Your task to perform on an android device: turn vacation reply on in the gmail app Image 0: 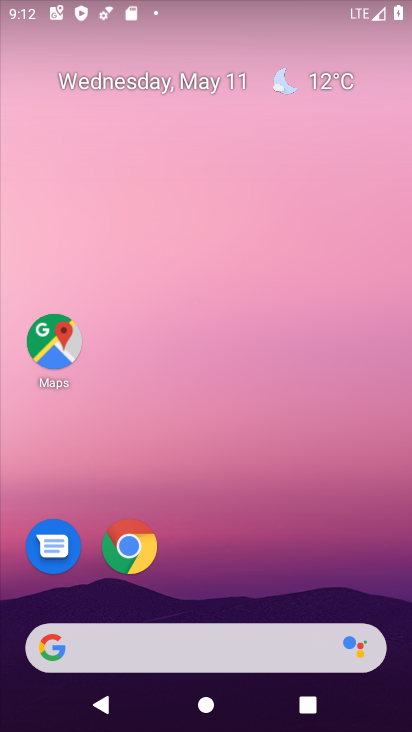
Step 0: drag from (394, 635) to (356, 76)
Your task to perform on an android device: turn vacation reply on in the gmail app Image 1: 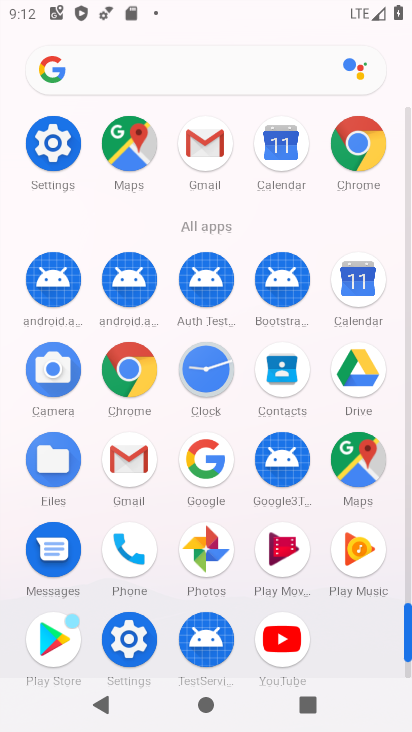
Step 1: click (133, 458)
Your task to perform on an android device: turn vacation reply on in the gmail app Image 2: 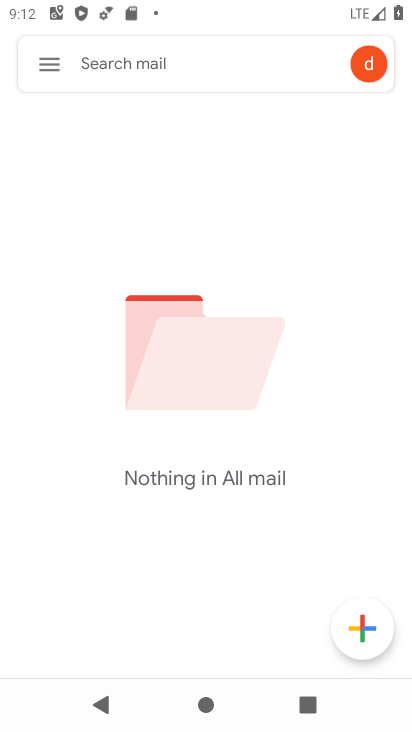
Step 2: click (45, 65)
Your task to perform on an android device: turn vacation reply on in the gmail app Image 3: 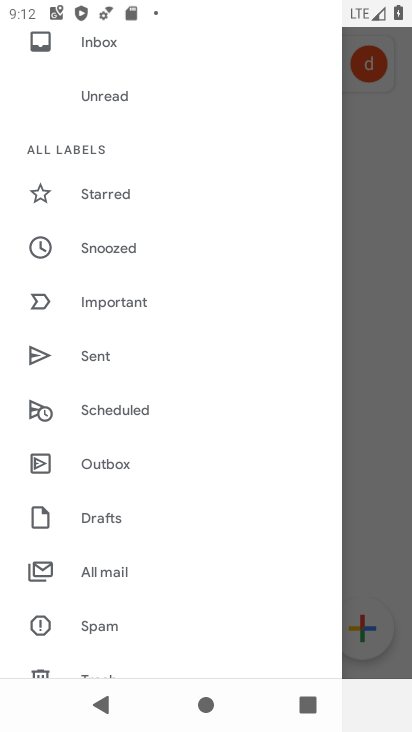
Step 3: drag from (191, 626) to (186, 174)
Your task to perform on an android device: turn vacation reply on in the gmail app Image 4: 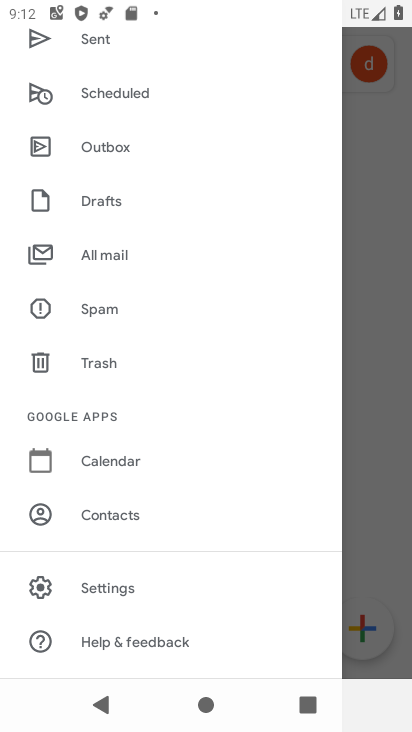
Step 4: click (95, 595)
Your task to perform on an android device: turn vacation reply on in the gmail app Image 5: 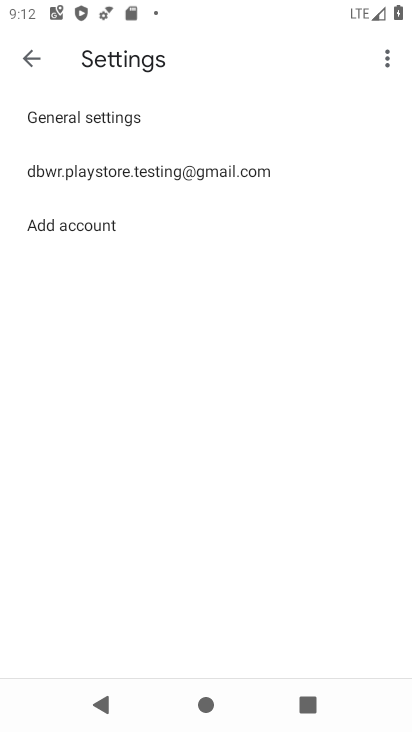
Step 5: click (109, 175)
Your task to perform on an android device: turn vacation reply on in the gmail app Image 6: 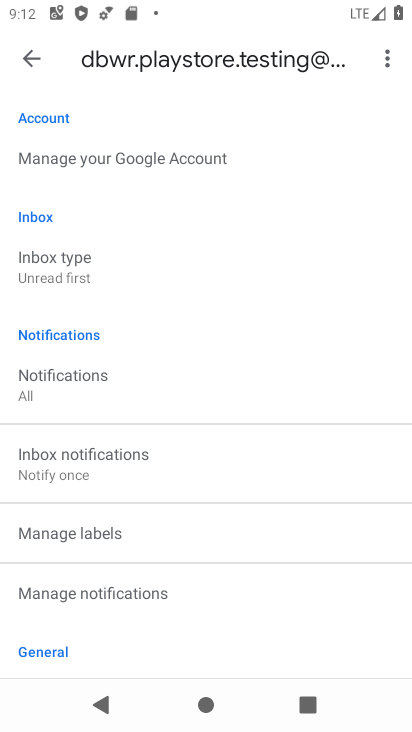
Step 6: task complete